Your task to perform on an android device: What's the weather? Image 0: 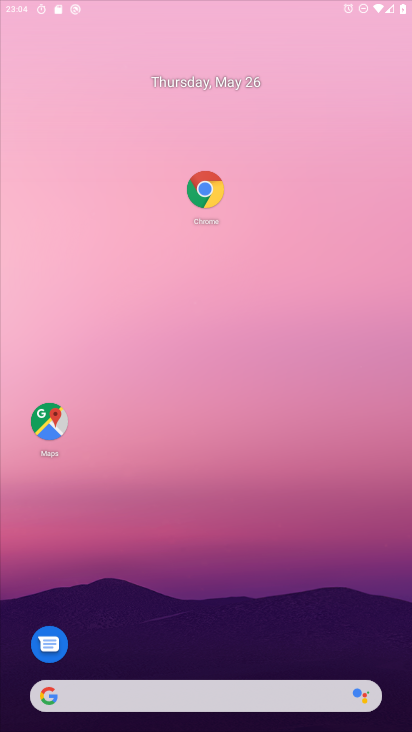
Step 0: click (337, 0)
Your task to perform on an android device: What's the weather? Image 1: 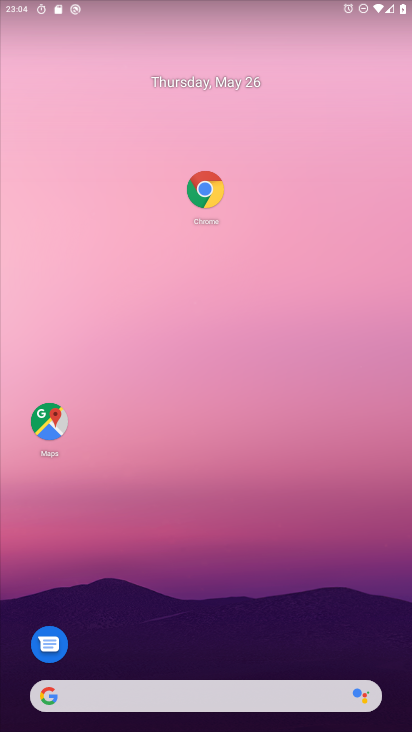
Step 1: drag from (213, 638) to (279, 182)
Your task to perform on an android device: What's the weather? Image 2: 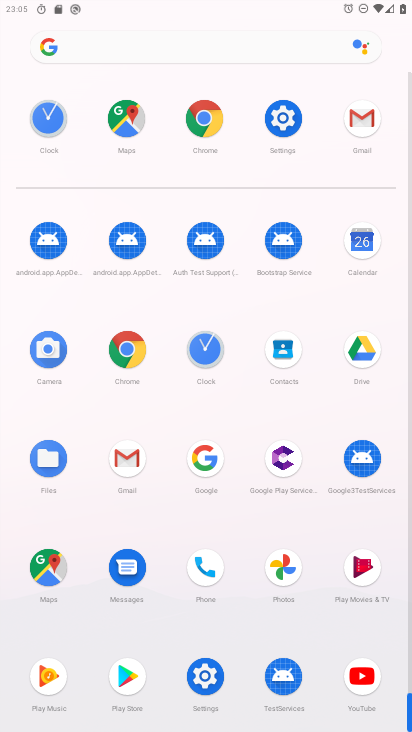
Step 2: click (131, 40)
Your task to perform on an android device: What's the weather? Image 3: 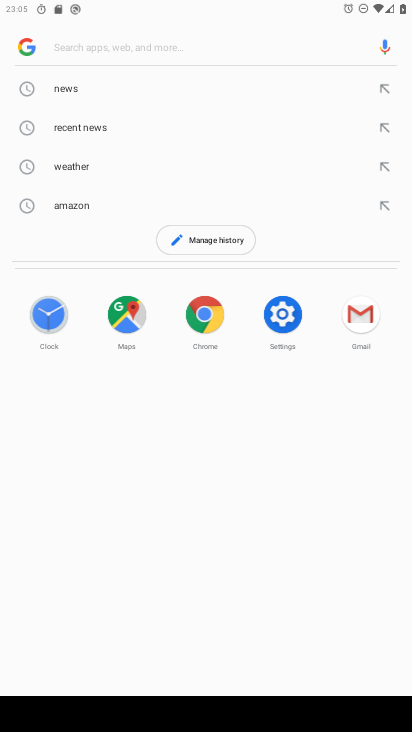
Step 3: click (75, 175)
Your task to perform on an android device: What's the weather? Image 4: 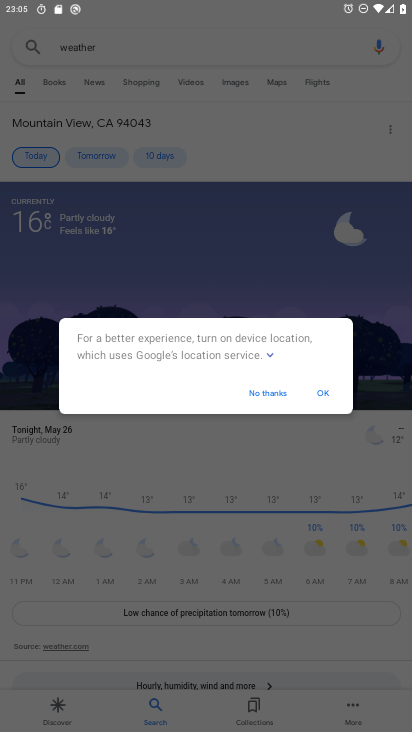
Step 4: task complete